Your task to perform on an android device: change the clock display to digital Image 0: 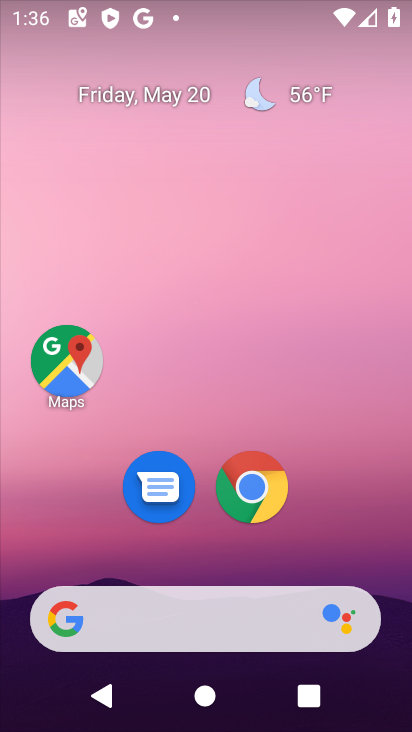
Step 0: drag from (204, 512) to (264, 15)
Your task to perform on an android device: change the clock display to digital Image 1: 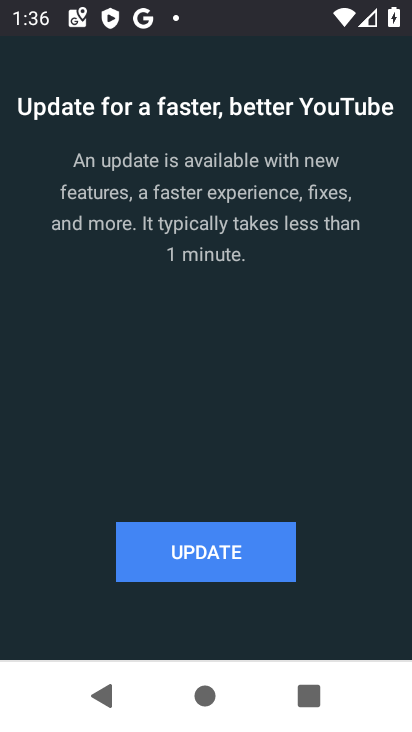
Step 1: press home button
Your task to perform on an android device: change the clock display to digital Image 2: 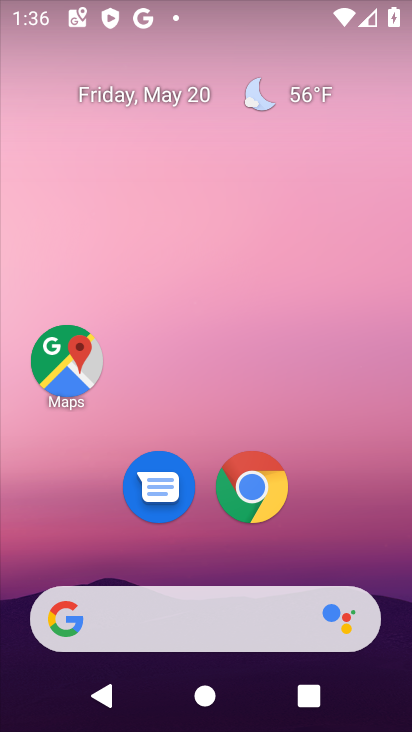
Step 2: drag from (209, 553) to (253, 46)
Your task to perform on an android device: change the clock display to digital Image 3: 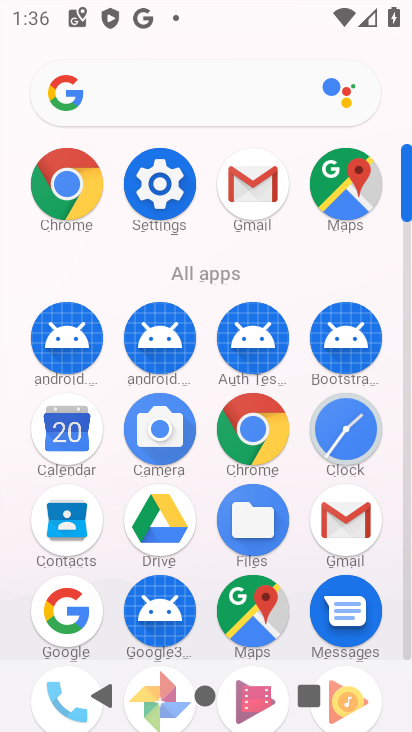
Step 3: drag from (207, 561) to (236, 137)
Your task to perform on an android device: change the clock display to digital Image 4: 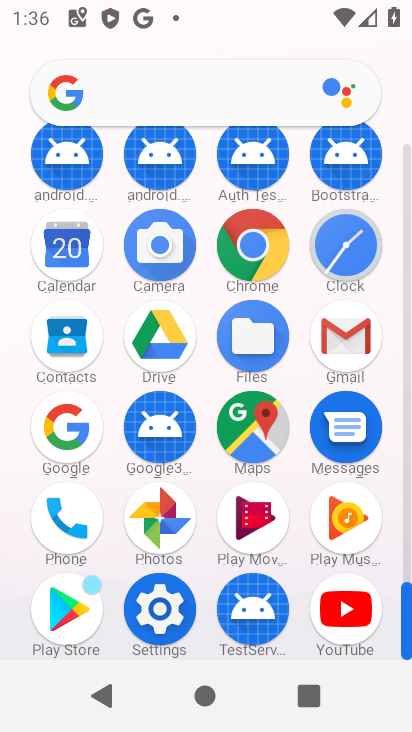
Step 4: click (347, 236)
Your task to perform on an android device: change the clock display to digital Image 5: 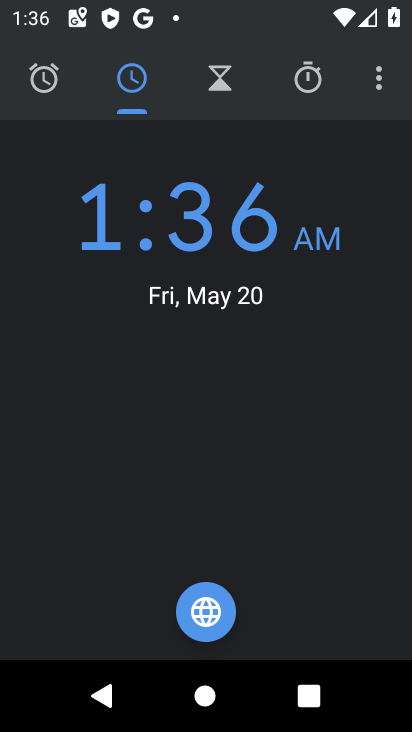
Step 5: click (375, 83)
Your task to perform on an android device: change the clock display to digital Image 6: 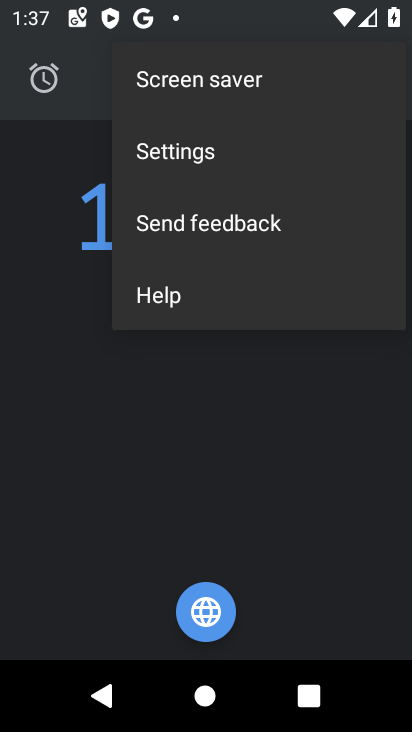
Step 6: click (222, 149)
Your task to perform on an android device: change the clock display to digital Image 7: 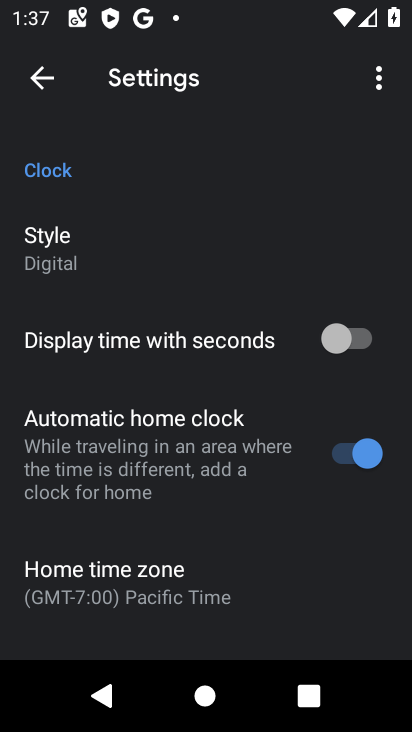
Step 7: click (106, 249)
Your task to perform on an android device: change the clock display to digital Image 8: 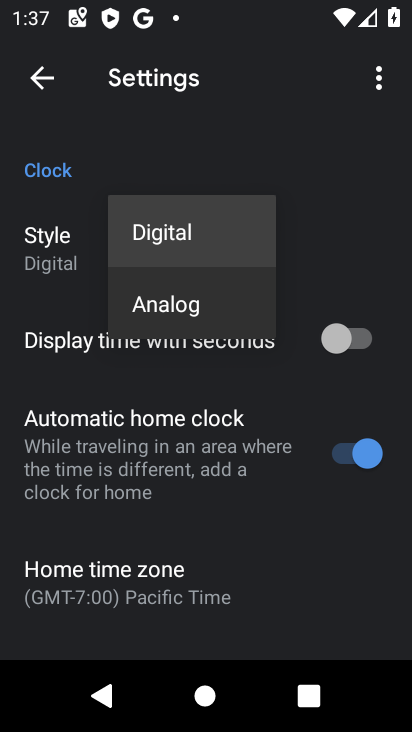
Step 8: click (211, 234)
Your task to perform on an android device: change the clock display to digital Image 9: 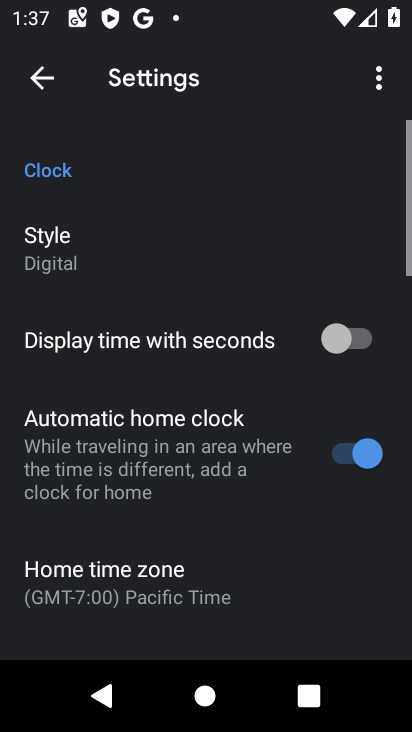
Step 9: task complete